Your task to perform on an android device: Play the last video I watched on Youtube Image 0: 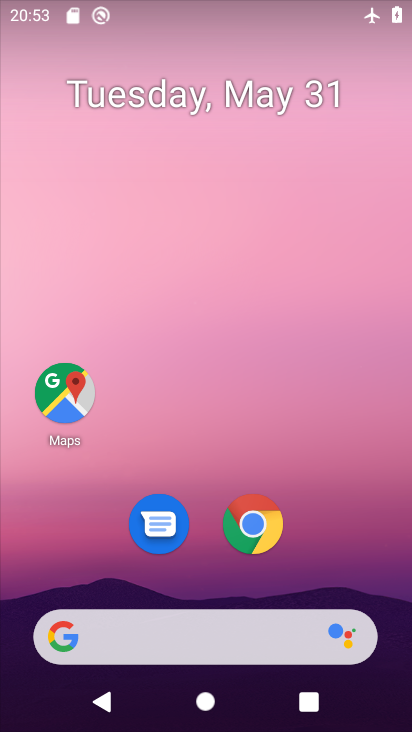
Step 0: drag from (338, 543) to (303, 1)
Your task to perform on an android device: Play the last video I watched on Youtube Image 1: 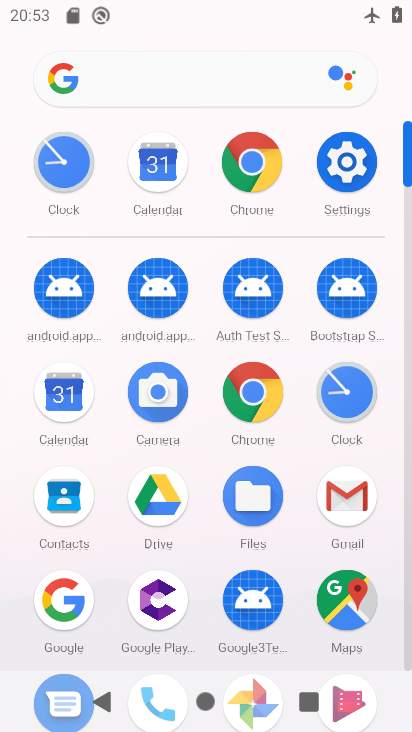
Step 1: drag from (327, 565) to (345, 353)
Your task to perform on an android device: Play the last video I watched on Youtube Image 2: 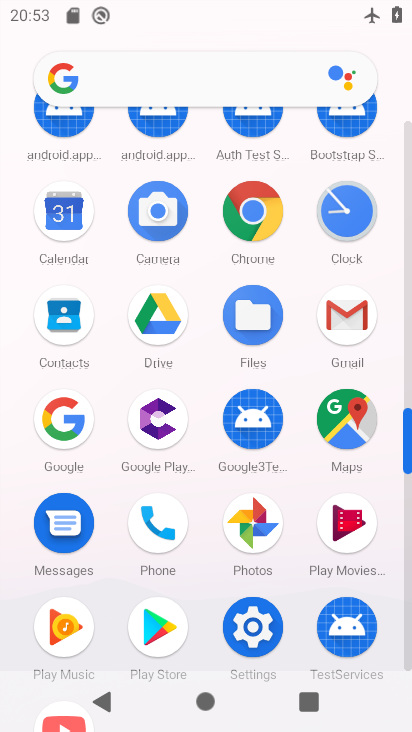
Step 2: drag from (207, 544) to (233, 321)
Your task to perform on an android device: Play the last video I watched on Youtube Image 3: 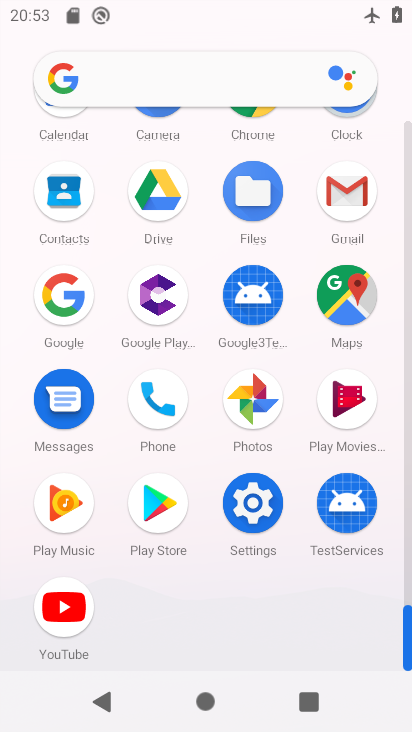
Step 3: click (59, 599)
Your task to perform on an android device: Play the last video I watched on Youtube Image 4: 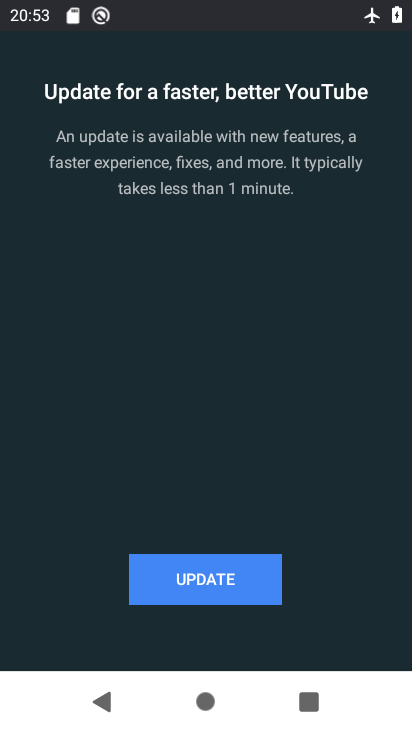
Step 4: click (190, 573)
Your task to perform on an android device: Play the last video I watched on Youtube Image 5: 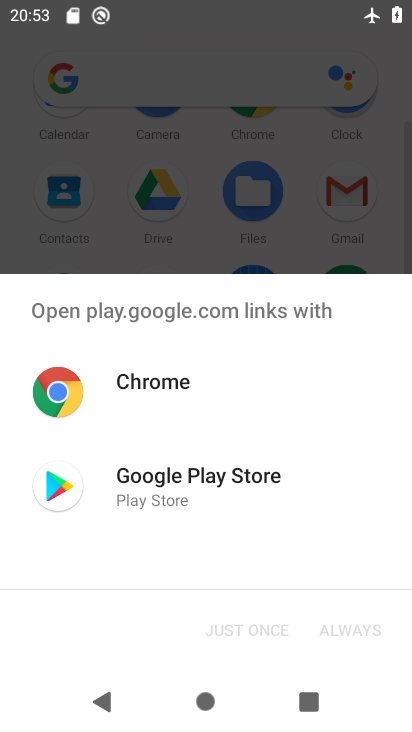
Step 5: click (177, 479)
Your task to perform on an android device: Play the last video I watched on Youtube Image 6: 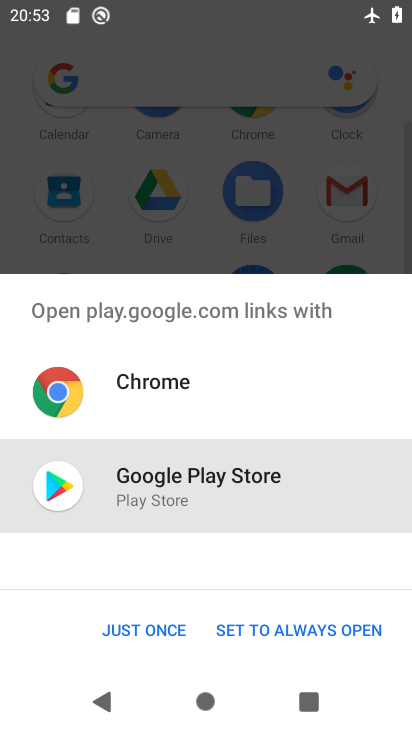
Step 6: click (169, 626)
Your task to perform on an android device: Play the last video I watched on Youtube Image 7: 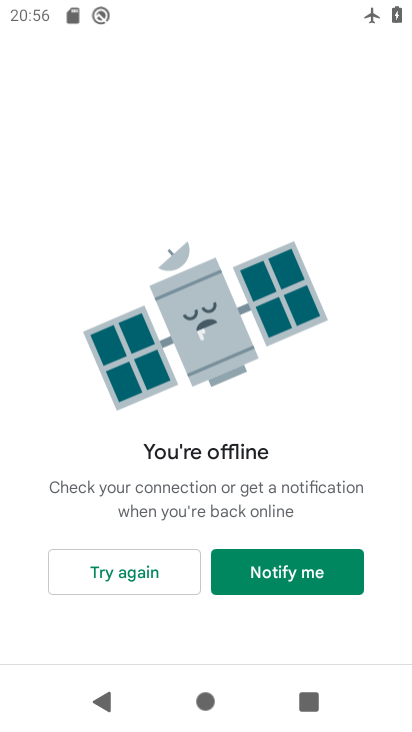
Step 7: task complete